Your task to perform on an android device: Is it going to rain today? Image 0: 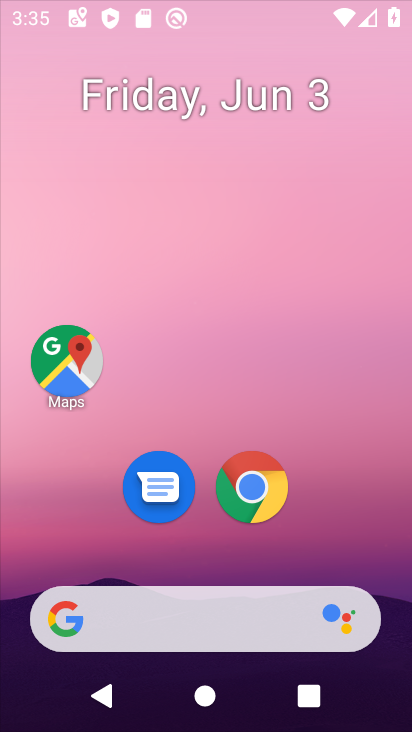
Step 0: drag from (183, 6) to (256, 69)
Your task to perform on an android device: Is it going to rain today? Image 1: 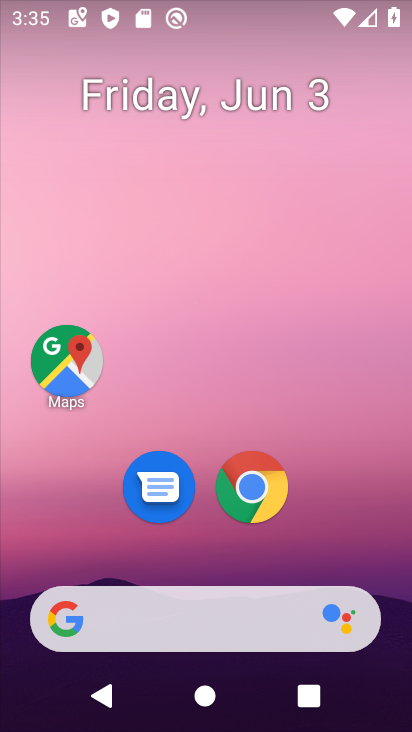
Step 1: drag from (209, 559) to (280, 157)
Your task to perform on an android device: Is it going to rain today? Image 2: 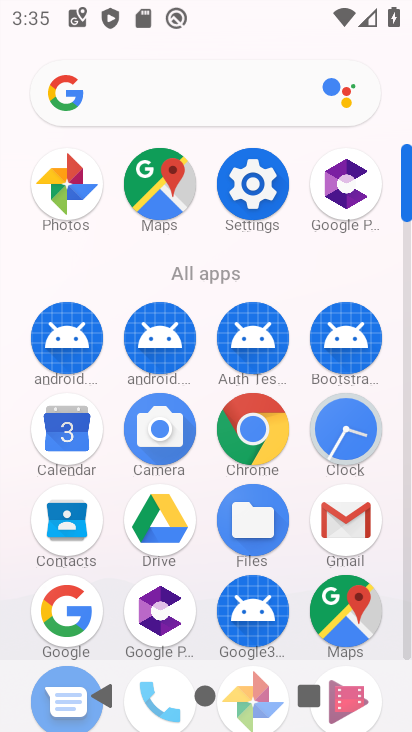
Step 2: click (193, 104)
Your task to perform on an android device: Is it going to rain today? Image 3: 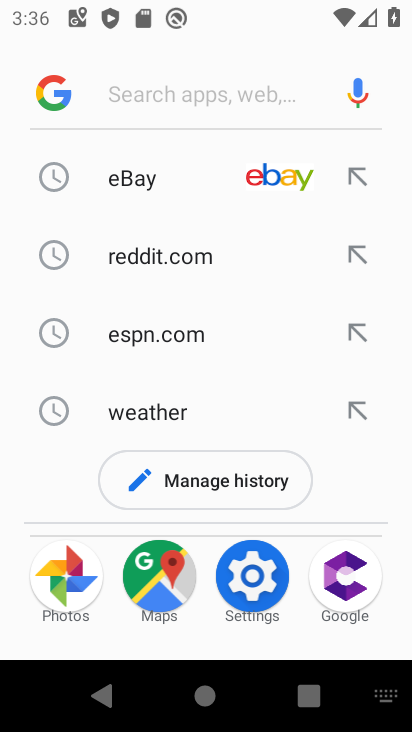
Step 3: type "rain today?"
Your task to perform on an android device: Is it going to rain today? Image 4: 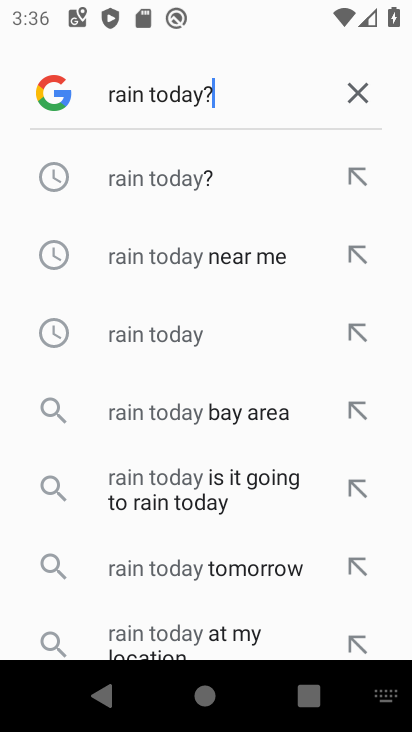
Step 4: type ""
Your task to perform on an android device: Is it going to rain today? Image 5: 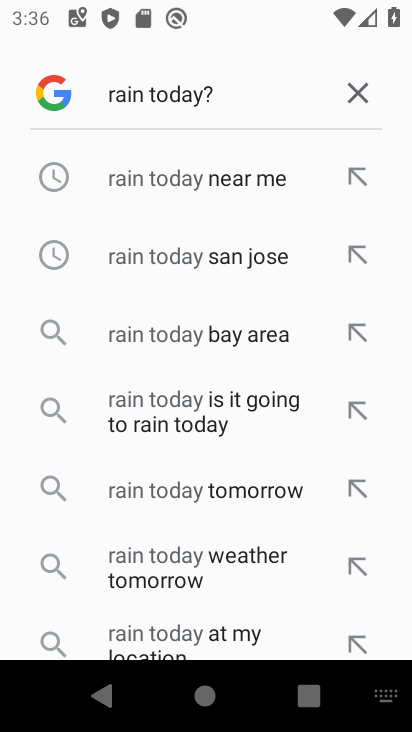
Step 5: click (131, 185)
Your task to perform on an android device: Is it going to rain today? Image 6: 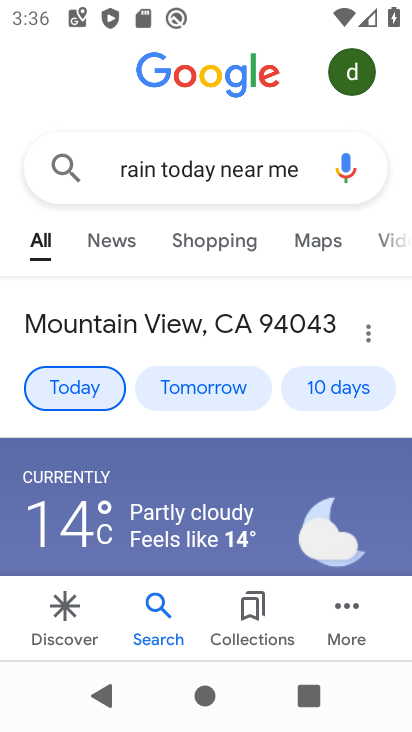
Step 6: task complete